Your task to perform on an android device: turn off location Image 0: 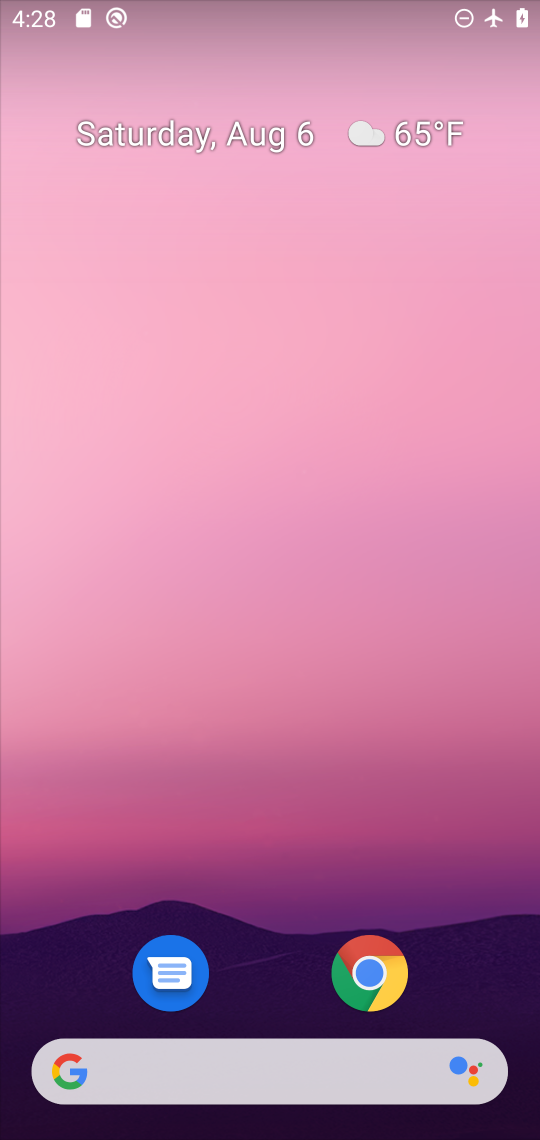
Step 0: drag from (275, 901) to (363, 139)
Your task to perform on an android device: turn off location Image 1: 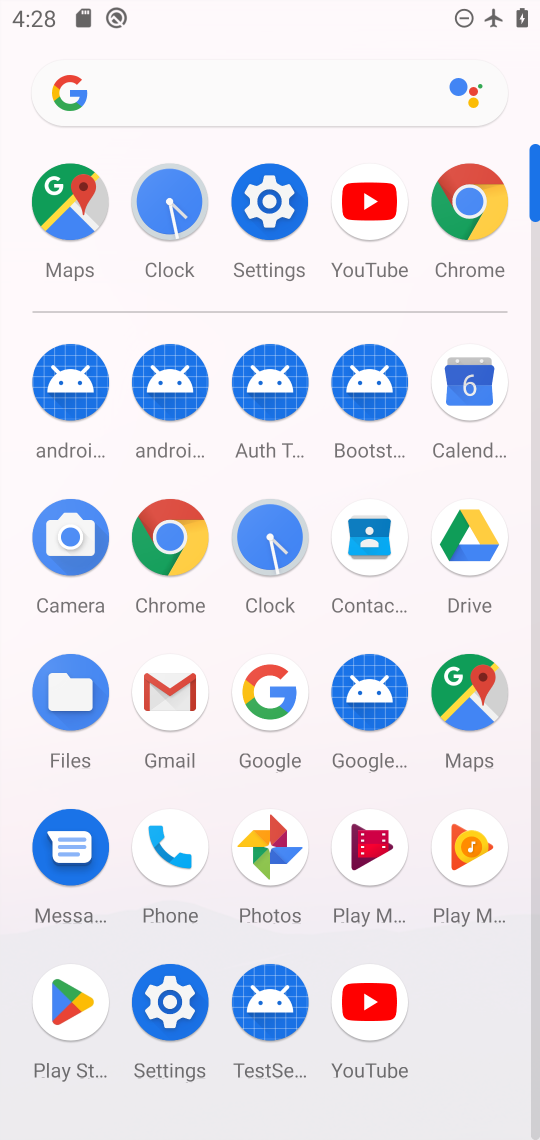
Step 1: click (163, 985)
Your task to perform on an android device: turn off location Image 2: 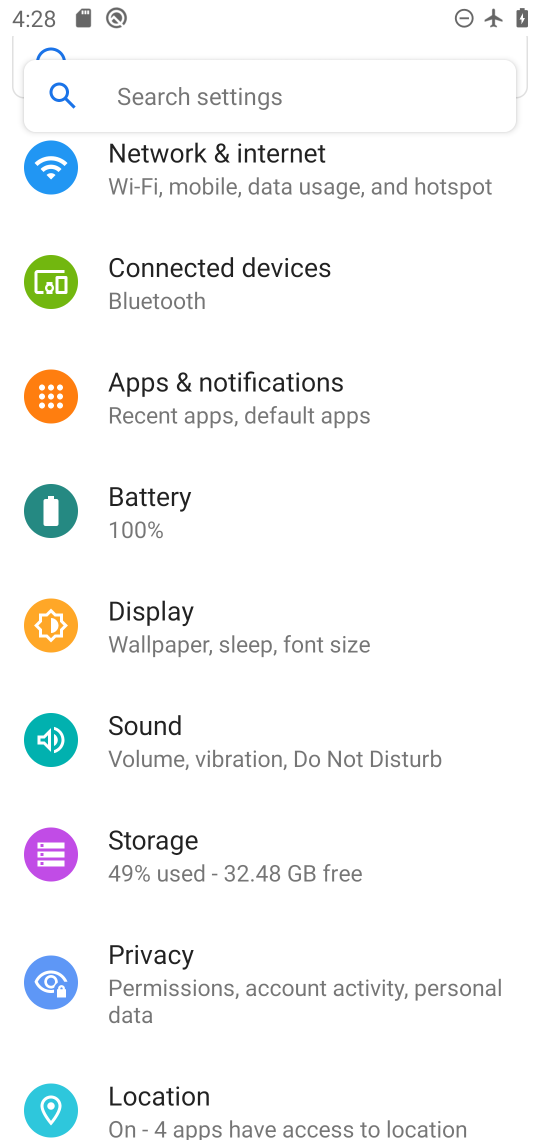
Step 2: click (173, 1095)
Your task to perform on an android device: turn off location Image 3: 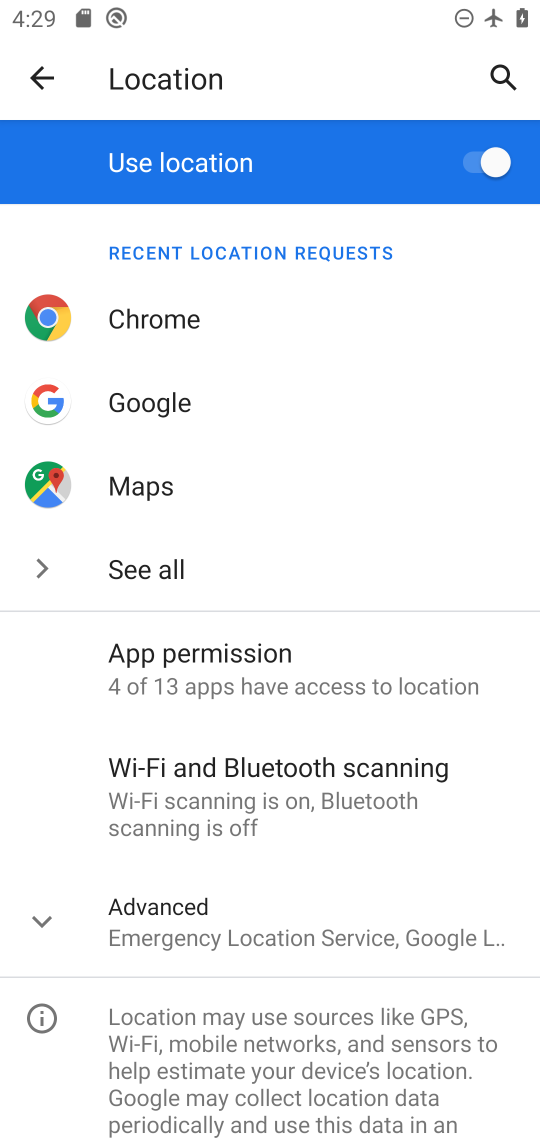
Step 3: click (470, 151)
Your task to perform on an android device: turn off location Image 4: 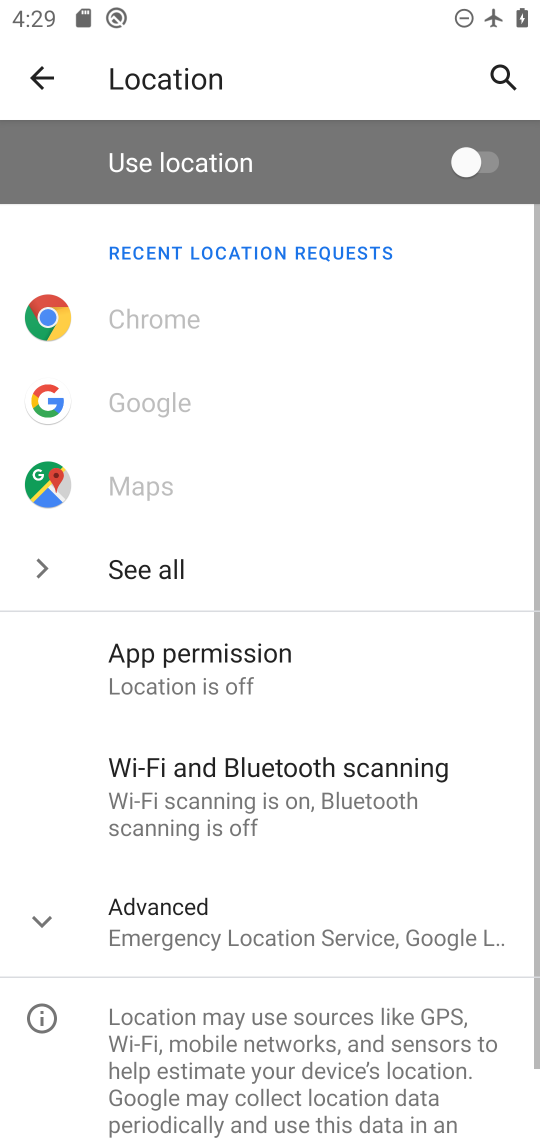
Step 4: task complete